Your task to perform on an android device: Open my contact list Image 0: 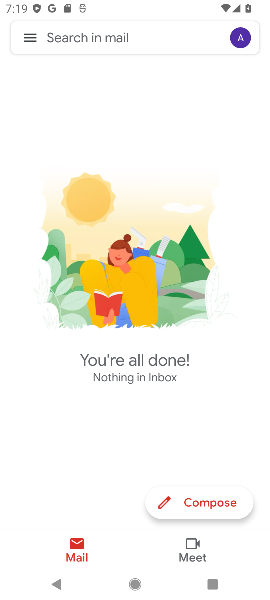
Step 0: press home button
Your task to perform on an android device: Open my contact list Image 1: 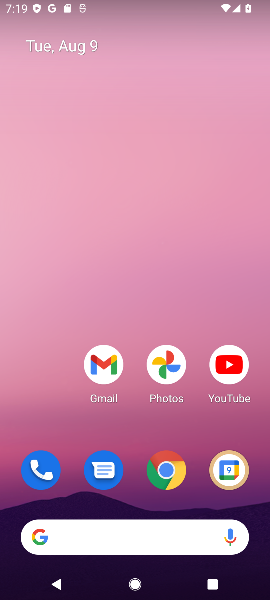
Step 1: drag from (106, 579) to (125, 112)
Your task to perform on an android device: Open my contact list Image 2: 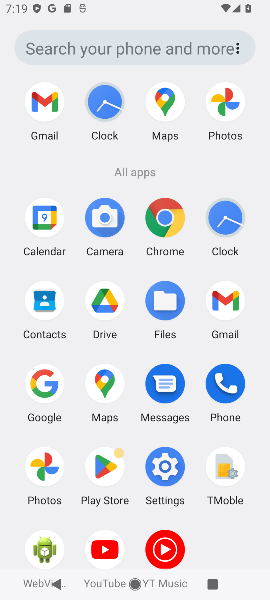
Step 2: click (35, 300)
Your task to perform on an android device: Open my contact list Image 3: 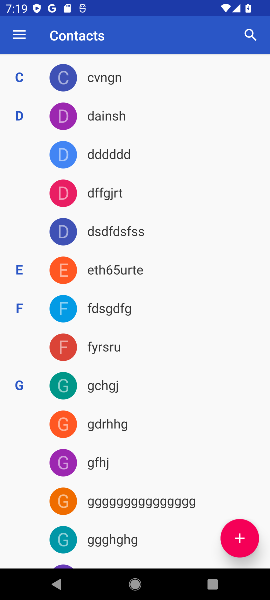
Step 3: task complete